Your task to perform on an android device: toggle improve location accuracy Image 0: 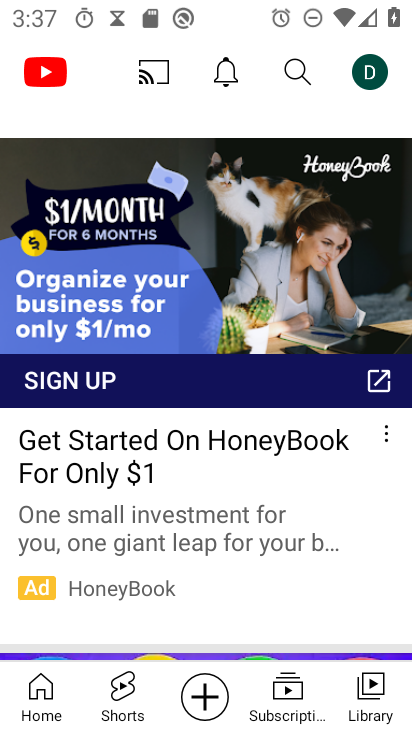
Step 0: press home button
Your task to perform on an android device: toggle improve location accuracy Image 1: 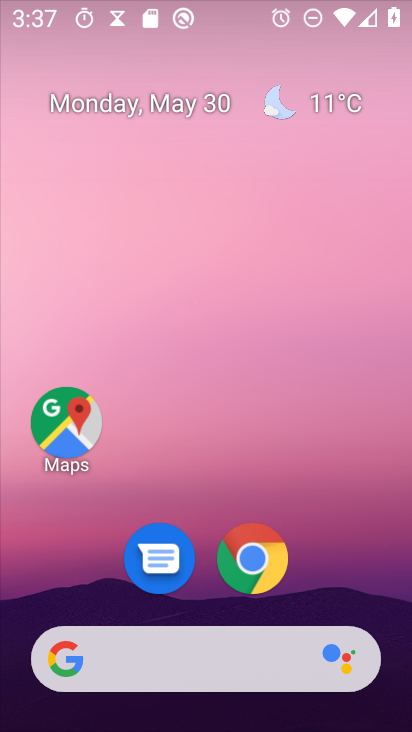
Step 1: drag from (178, 485) to (251, 34)
Your task to perform on an android device: toggle improve location accuracy Image 2: 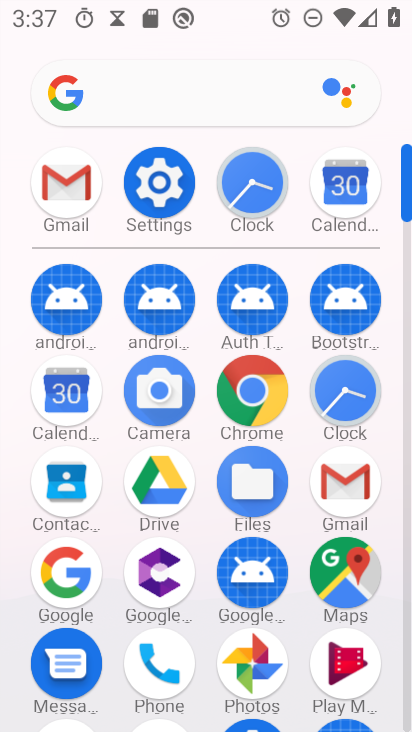
Step 2: click (155, 186)
Your task to perform on an android device: toggle improve location accuracy Image 3: 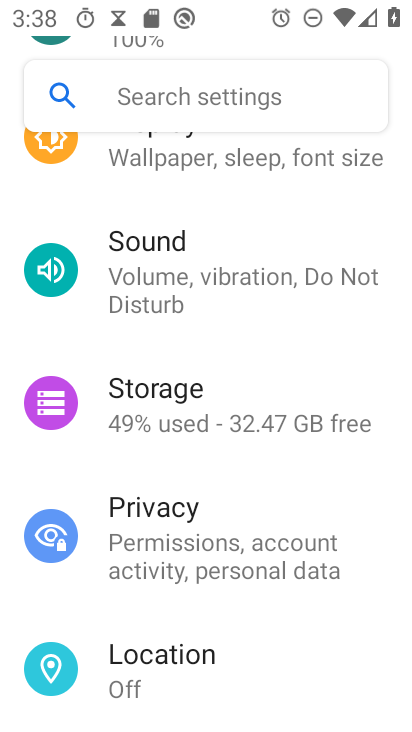
Step 3: click (191, 681)
Your task to perform on an android device: toggle improve location accuracy Image 4: 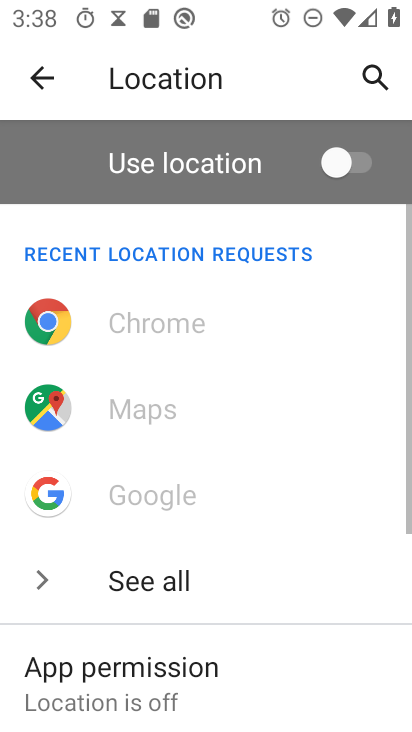
Step 4: drag from (172, 652) to (237, 89)
Your task to perform on an android device: toggle improve location accuracy Image 5: 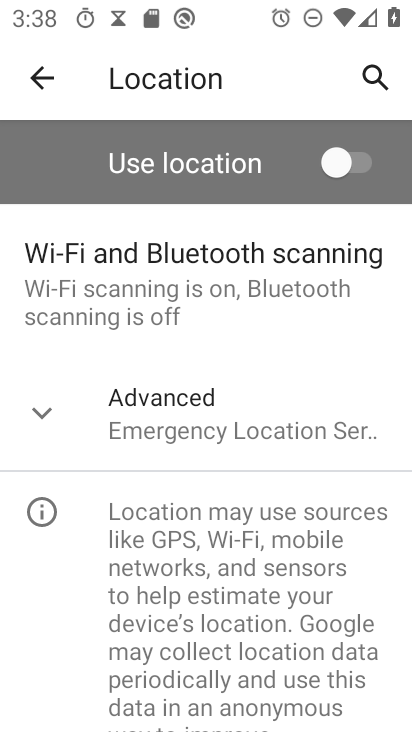
Step 5: click (196, 411)
Your task to perform on an android device: toggle improve location accuracy Image 6: 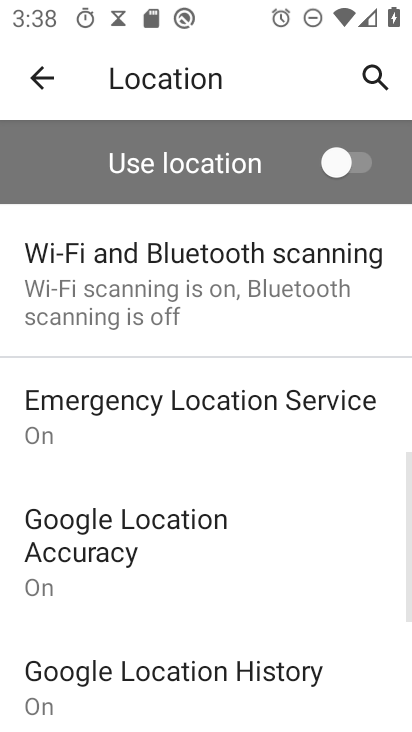
Step 6: drag from (161, 691) to (219, 355)
Your task to perform on an android device: toggle improve location accuracy Image 7: 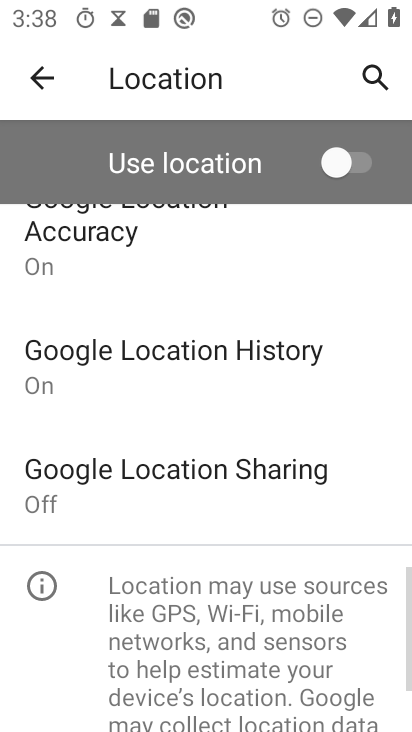
Step 7: click (65, 260)
Your task to perform on an android device: toggle improve location accuracy Image 8: 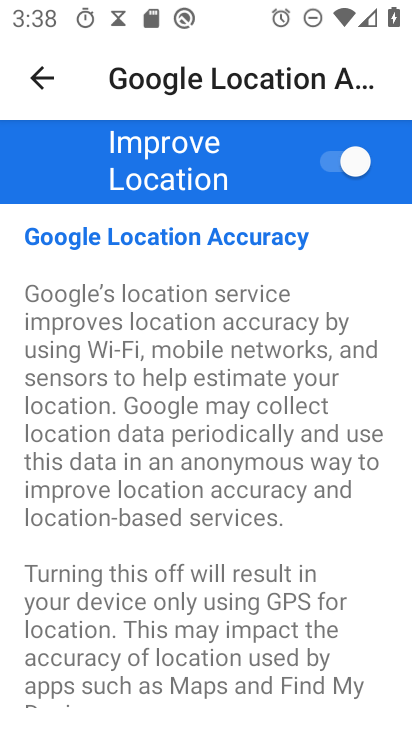
Step 8: click (352, 152)
Your task to perform on an android device: toggle improve location accuracy Image 9: 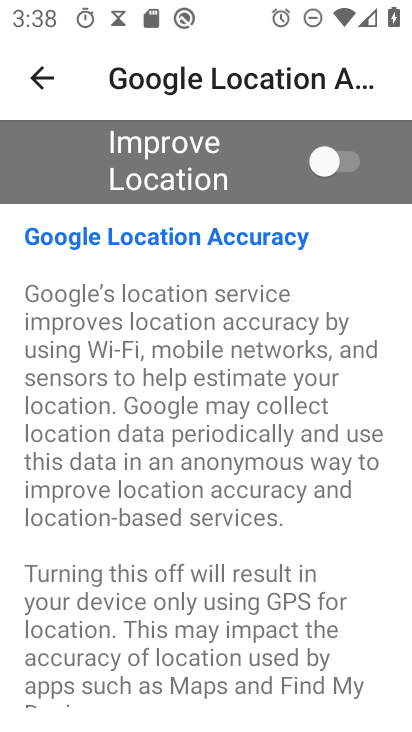
Step 9: task complete